Your task to perform on an android device: turn off notifications settings in the gmail app Image 0: 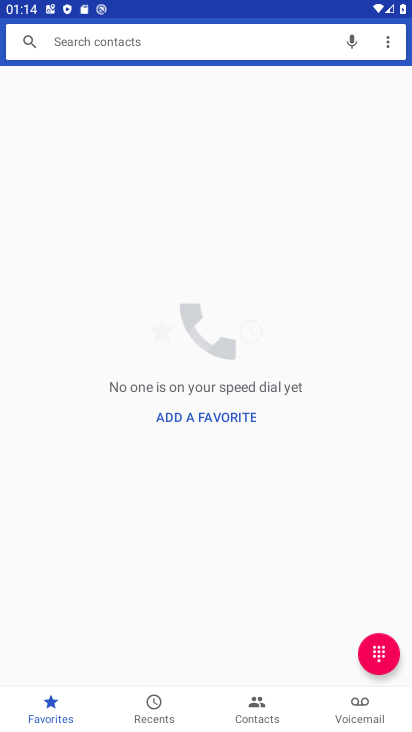
Step 0: press home button
Your task to perform on an android device: turn off notifications settings in the gmail app Image 1: 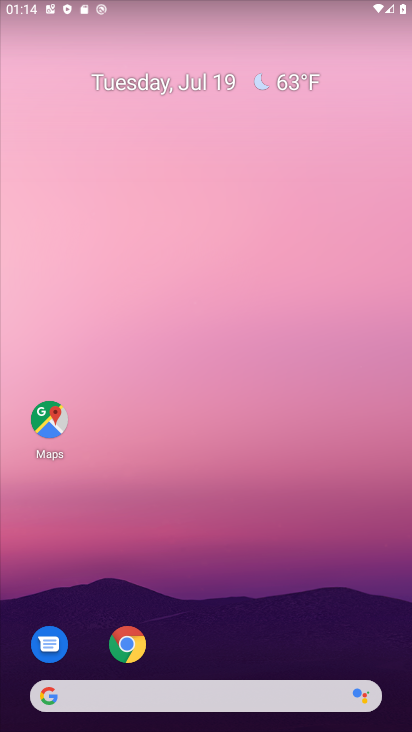
Step 1: drag from (218, 698) to (189, 269)
Your task to perform on an android device: turn off notifications settings in the gmail app Image 2: 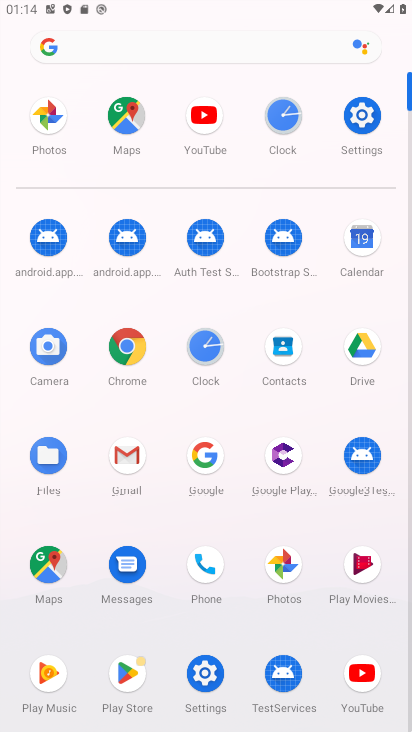
Step 2: click (133, 449)
Your task to perform on an android device: turn off notifications settings in the gmail app Image 3: 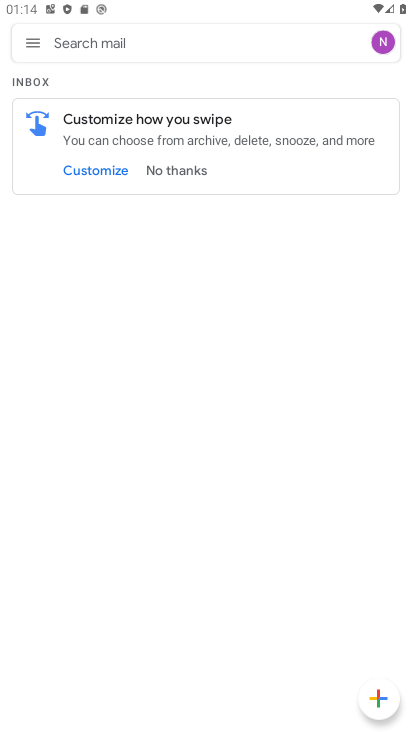
Step 3: click (31, 42)
Your task to perform on an android device: turn off notifications settings in the gmail app Image 4: 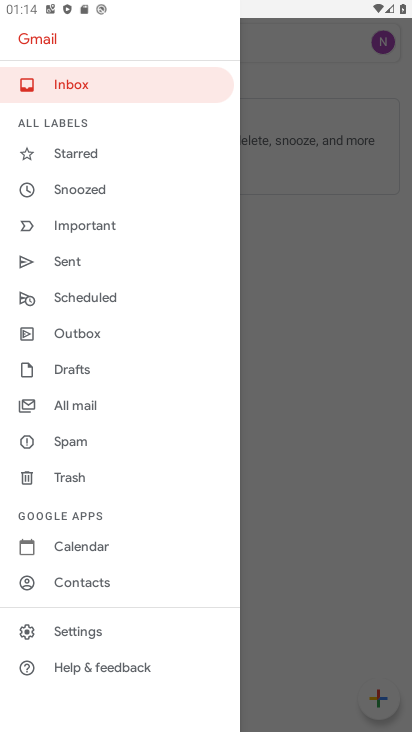
Step 4: click (72, 633)
Your task to perform on an android device: turn off notifications settings in the gmail app Image 5: 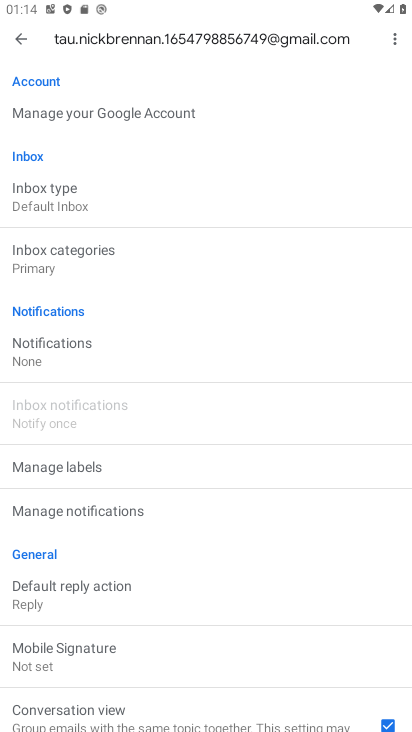
Step 5: task complete